Your task to perform on an android device: change the clock display to analog Image 0: 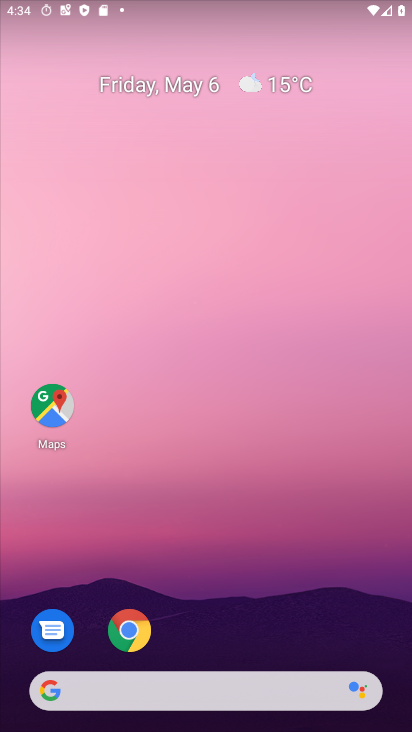
Step 0: drag from (272, 600) to (318, 63)
Your task to perform on an android device: change the clock display to analog Image 1: 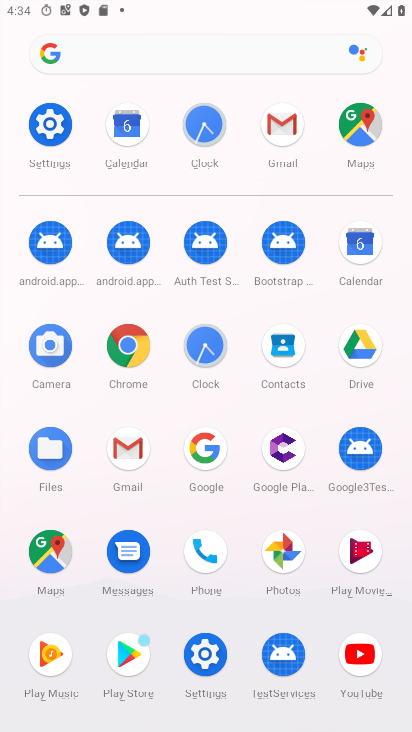
Step 1: click (202, 350)
Your task to perform on an android device: change the clock display to analog Image 2: 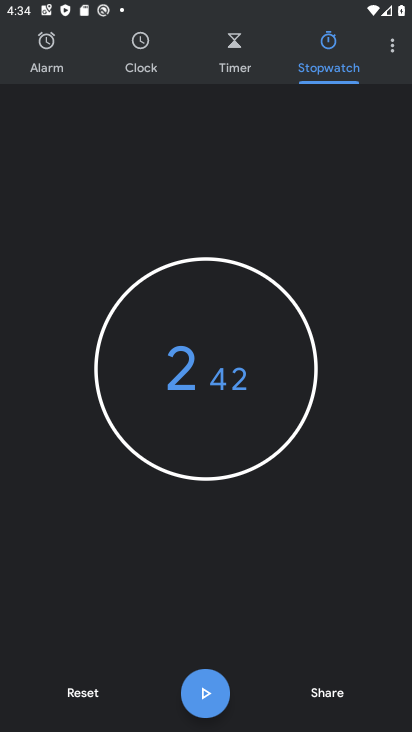
Step 2: click (390, 41)
Your task to perform on an android device: change the clock display to analog Image 3: 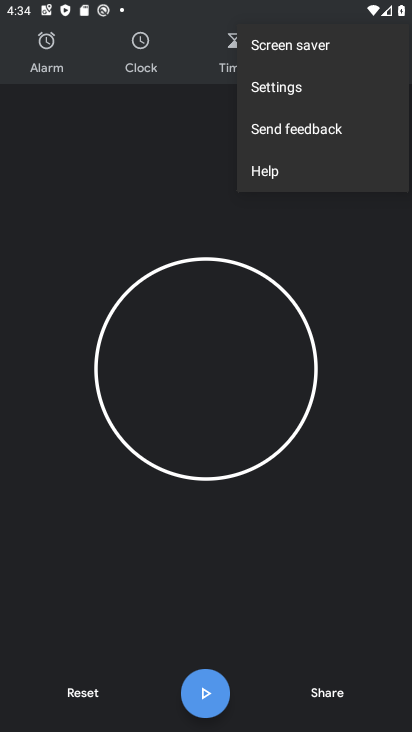
Step 3: click (291, 89)
Your task to perform on an android device: change the clock display to analog Image 4: 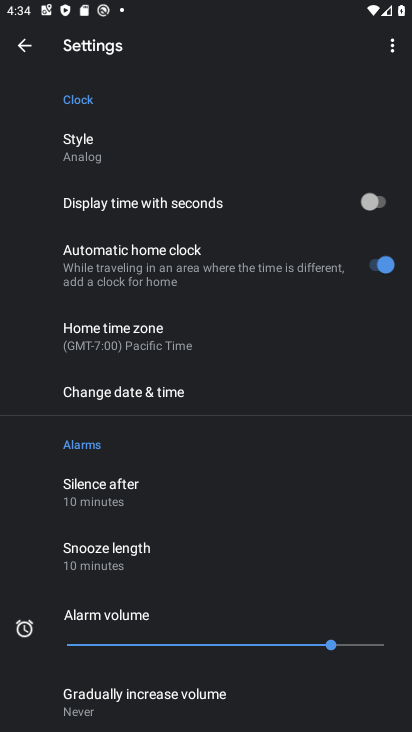
Step 4: click (73, 148)
Your task to perform on an android device: change the clock display to analog Image 5: 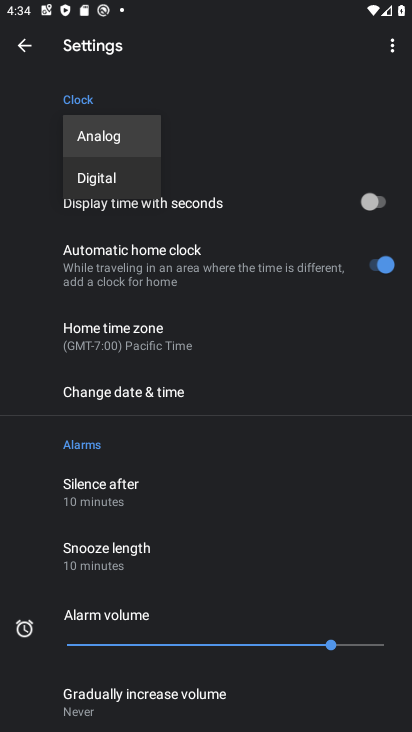
Step 5: click (112, 131)
Your task to perform on an android device: change the clock display to analog Image 6: 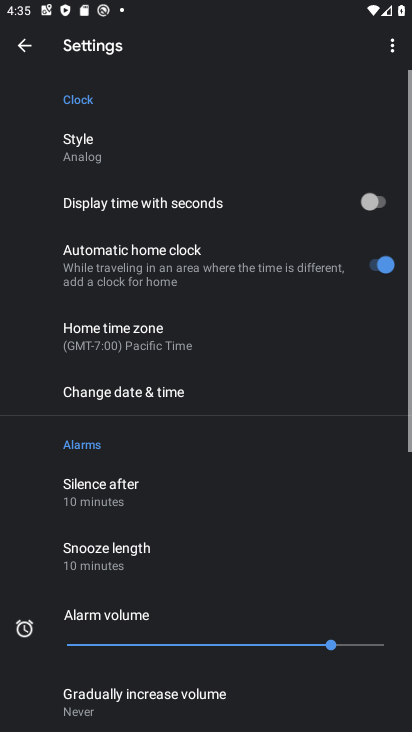
Step 6: task complete